Your task to perform on an android device: Go to eBay Image 0: 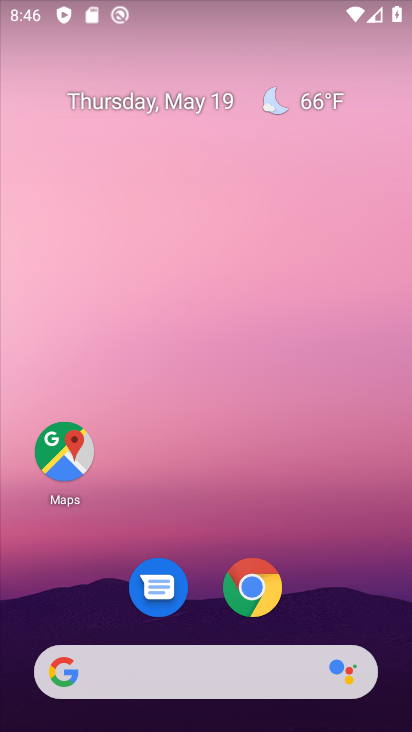
Step 0: drag from (230, 670) to (253, 227)
Your task to perform on an android device: Go to eBay Image 1: 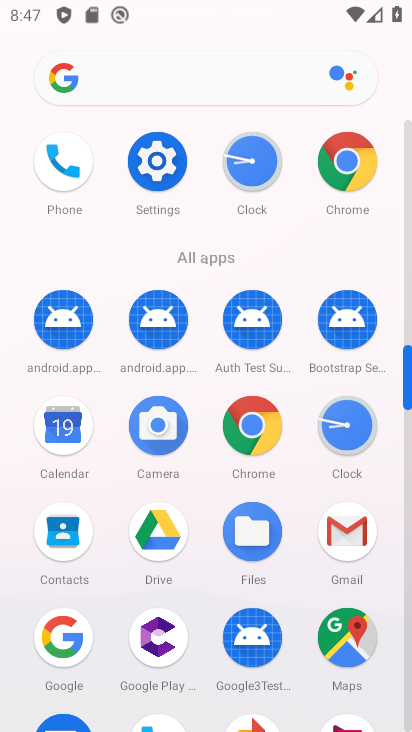
Step 1: click (317, 161)
Your task to perform on an android device: Go to eBay Image 2: 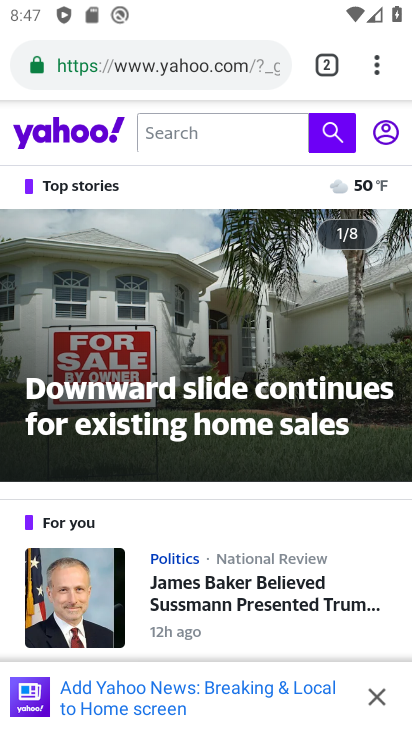
Step 2: click (200, 59)
Your task to perform on an android device: Go to eBay Image 3: 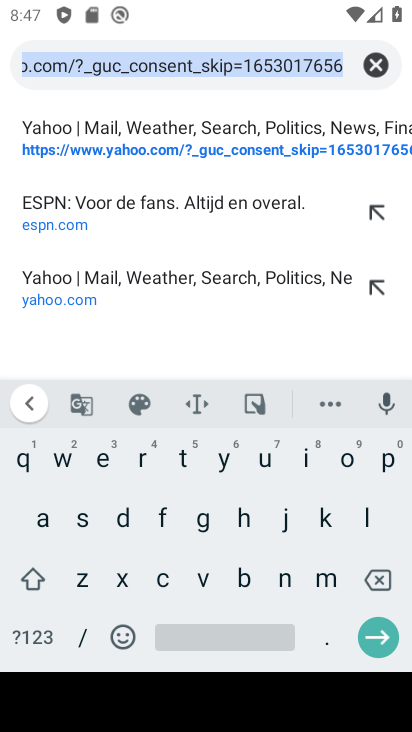
Step 3: click (373, 54)
Your task to perform on an android device: Go to eBay Image 4: 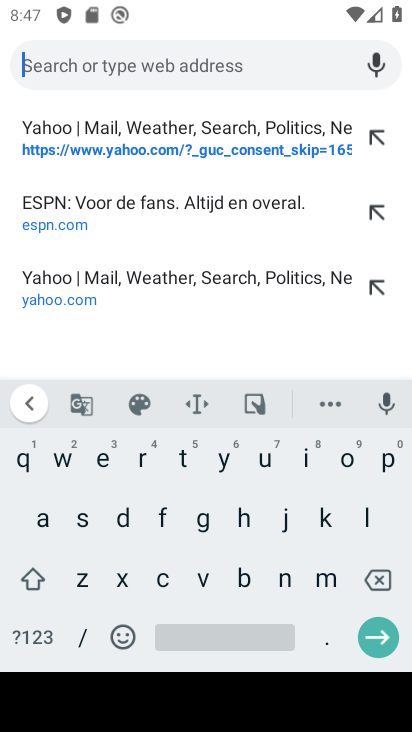
Step 4: click (106, 461)
Your task to perform on an android device: Go to eBay Image 5: 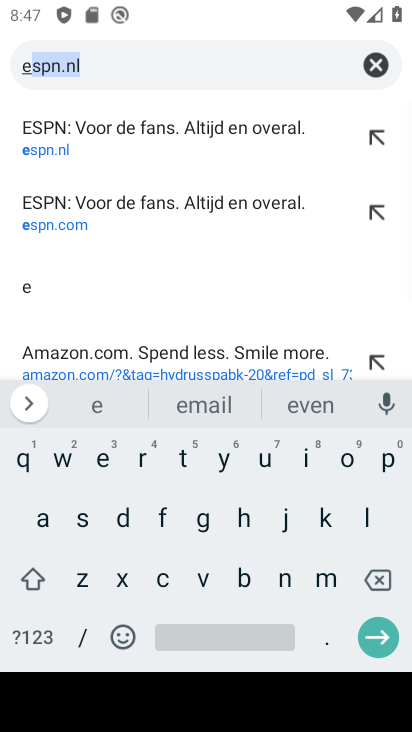
Step 5: click (239, 592)
Your task to perform on an android device: Go to eBay Image 6: 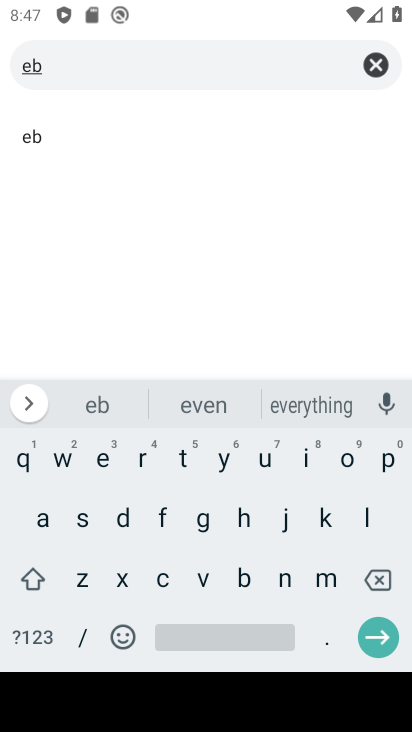
Step 6: click (47, 522)
Your task to perform on an android device: Go to eBay Image 7: 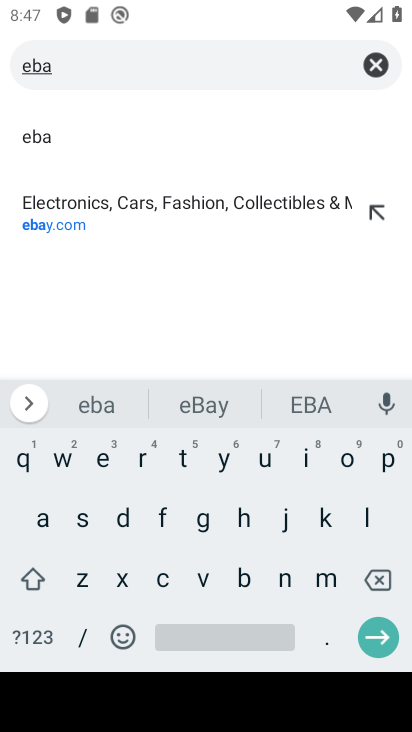
Step 7: click (226, 468)
Your task to perform on an android device: Go to eBay Image 8: 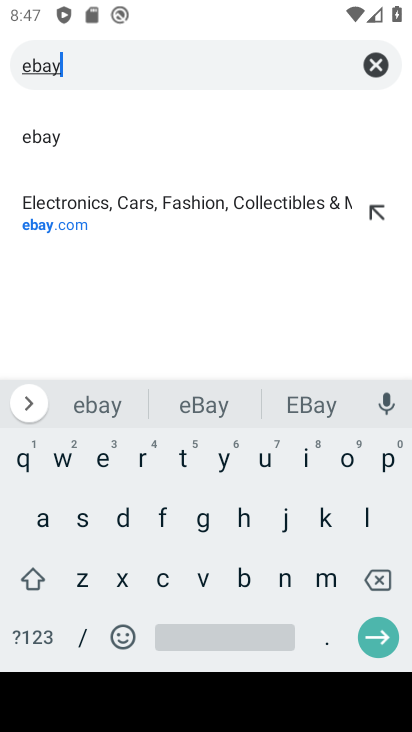
Step 8: click (384, 631)
Your task to perform on an android device: Go to eBay Image 9: 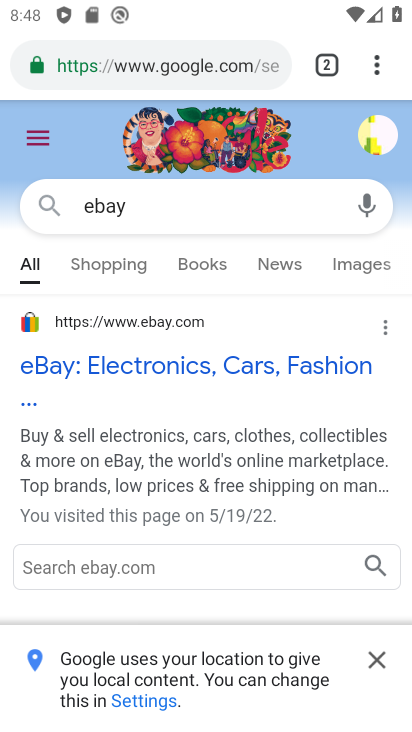
Step 9: task complete